Your task to perform on an android device: Open the stopwatch Image 0: 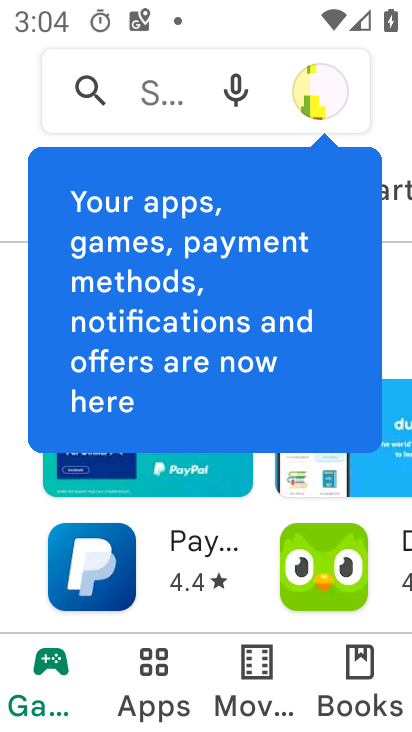
Step 0: press home button
Your task to perform on an android device: Open the stopwatch Image 1: 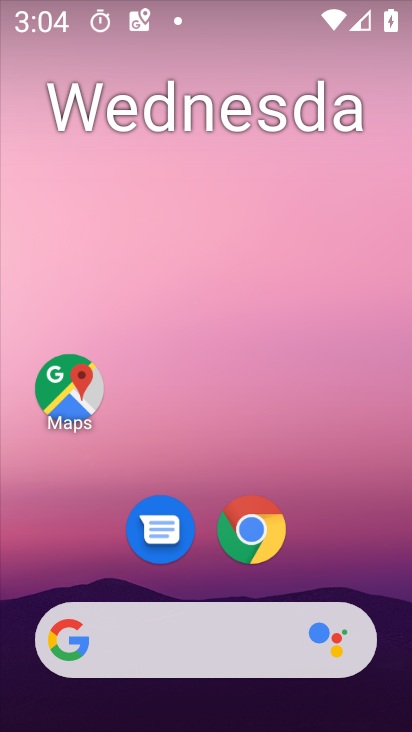
Step 1: drag from (312, 561) to (317, 81)
Your task to perform on an android device: Open the stopwatch Image 2: 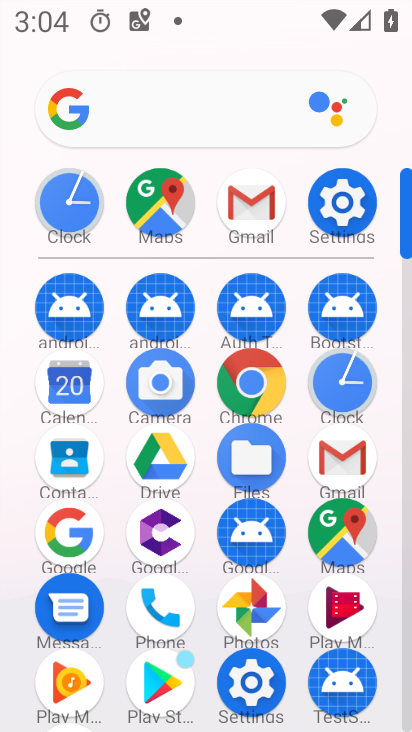
Step 2: click (68, 201)
Your task to perform on an android device: Open the stopwatch Image 3: 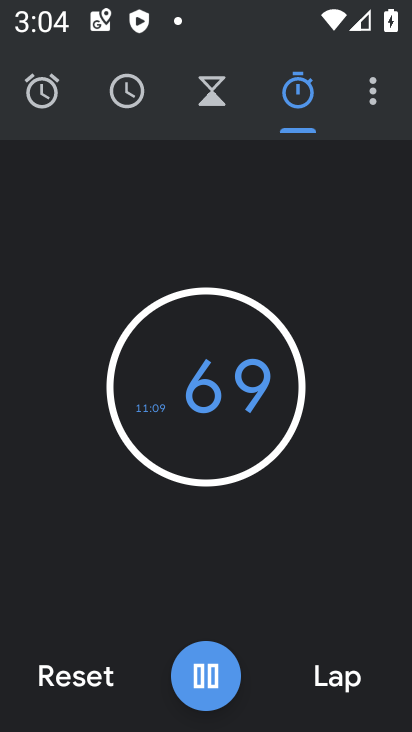
Step 3: task complete